Your task to perform on an android device: Set the phone to "Do not disturb". Image 0: 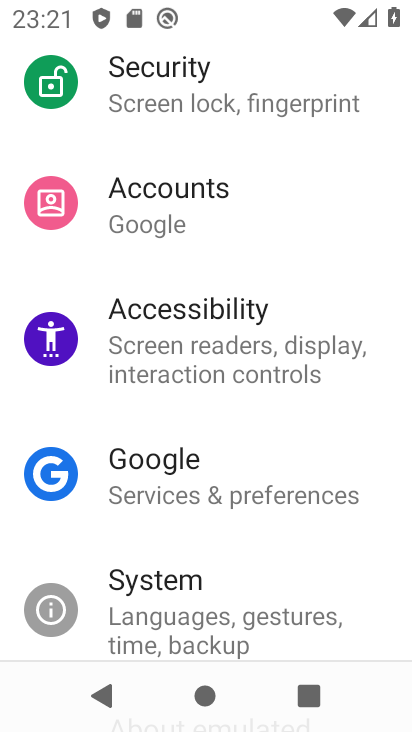
Step 0: drag from (219, 179) to (176, 650)
Your task to perform on an android device: Set the phone to "Do not disturb". Image 1: 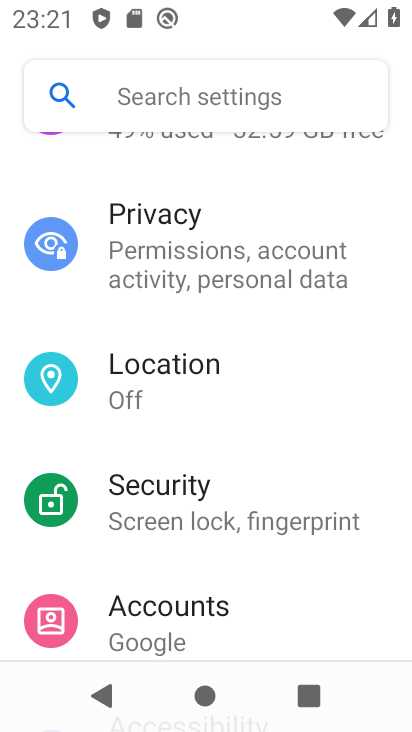
Step 1: drag from (247, 238) to (249, 449)
Your task to perform on an android device: Set the phone to "Do not disturb". Image 2: 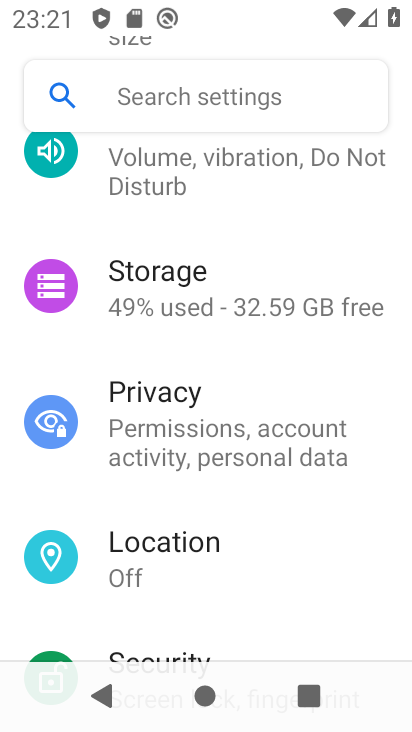
Step 2: click (216, 169)
Your task to perform on an android device: Set the phone to "Do not disturb". Image 3: 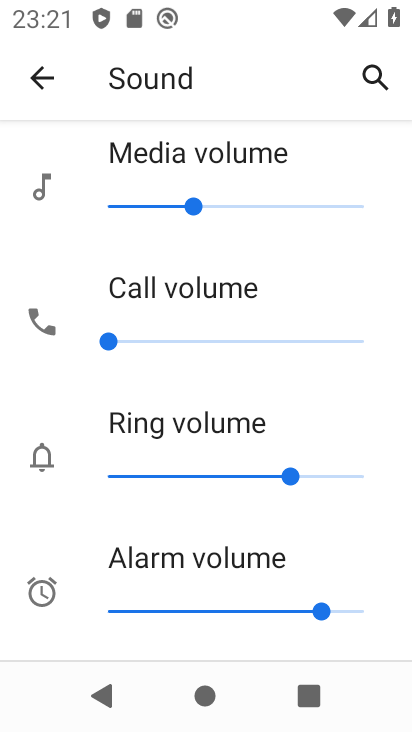
Step 3: drag from (129, 498) to (239, 224)
Your task to perform on an android device: Set the phone to "Do not disturb". Image 4: 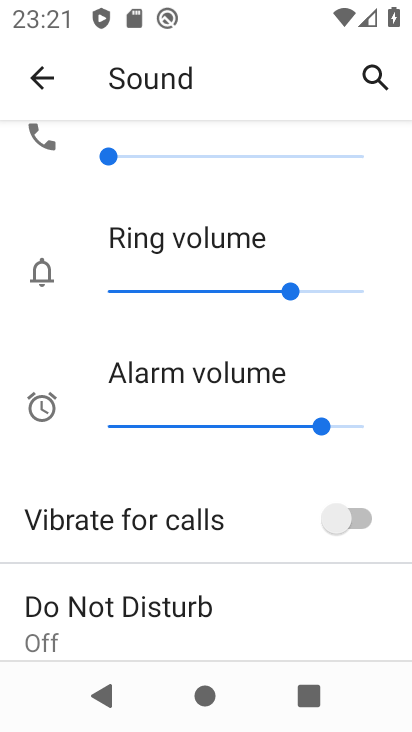
Step 4: click (194, 613)
Your task to perform on an android device: Set the phone to "Do not disturb". Image 5: 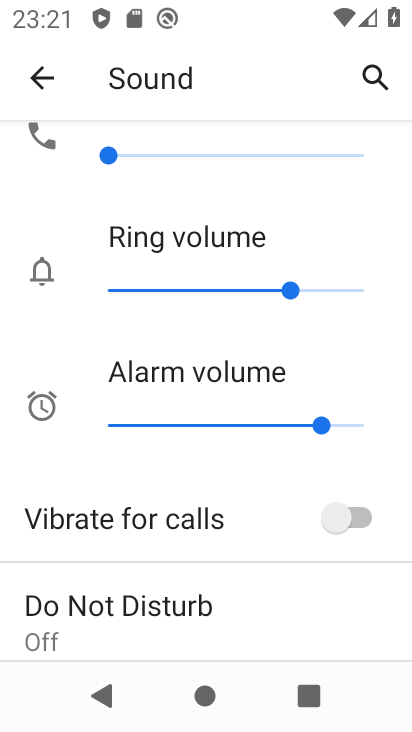
Step 5: click (131, 641)
Your task to perform on an android device: Set the phone to "Do not disturb". Image 6: 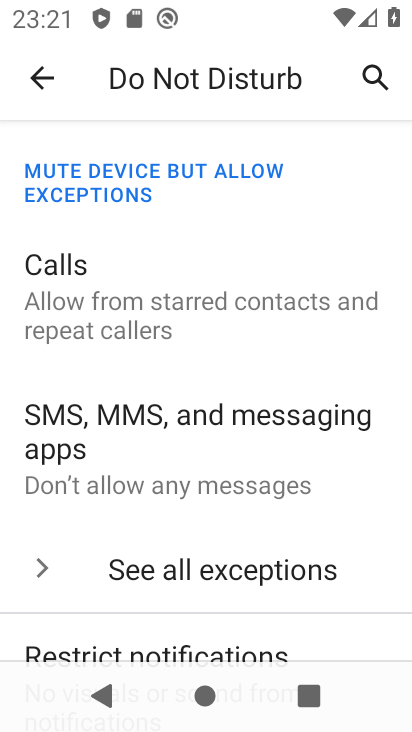
Step 6: drag from (213, 482) to (303, 234)
Your task to perform on an android device: Set the phone to "Do not disturb". Image 7: 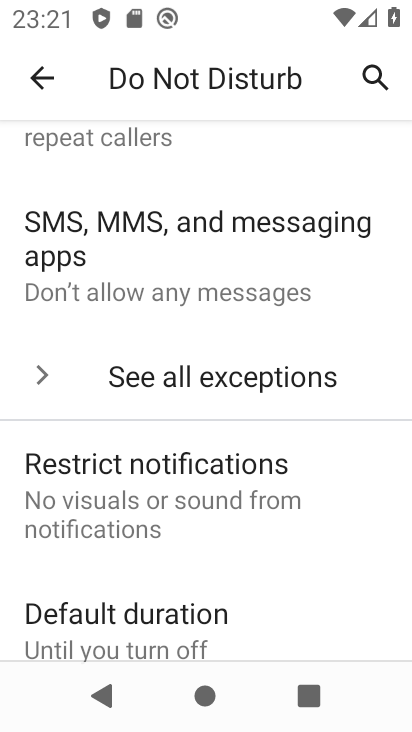
Step 7: drag from (270, 620) to (309, 401)
Your task to perform on an android device: Set the phone to "Do not disturb". Image 8: 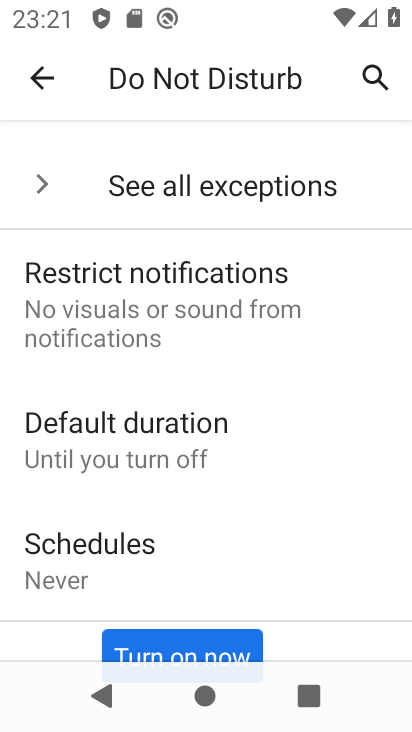
Step 8: click (192, 645)
Your task to perform on an android device: Set the phone to "Do not disturb". Image 9: 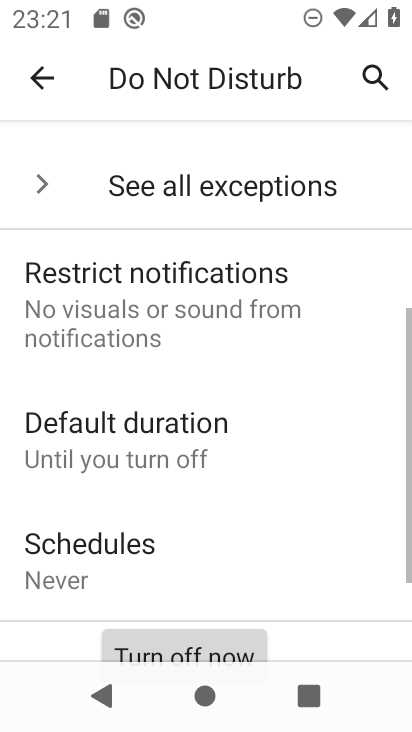
Step 9: task complete